Your task to perform on an android device: Clear the shopping cart on walmart. Add "jbl flip 4" to the cart on walmart, then select checkout. Image 0: 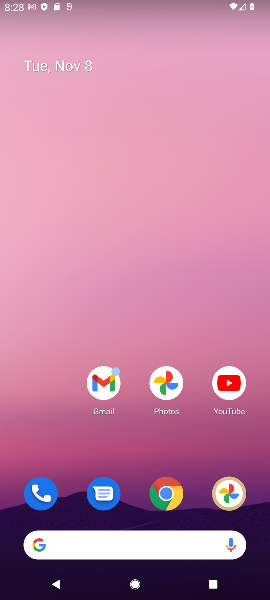
Step 0: click (169, 492)
Your task to perform on an android device: Clear the shopping cart on walmart. Add "jbl flip 4" to the cart on walmart, then select checkout. Image 1: 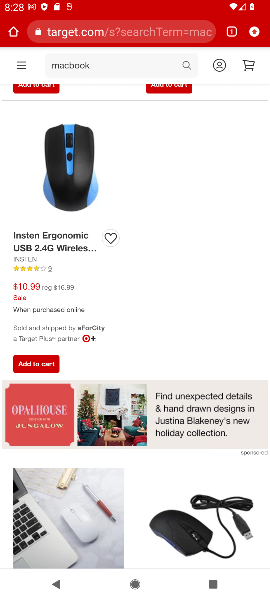
Step 1: click (112, 33)
Your task to perform on an android device: Clear the shopping cart on walmart. Add "jbl flip 4" to the cart on walmart, then select checkout. Image 2: 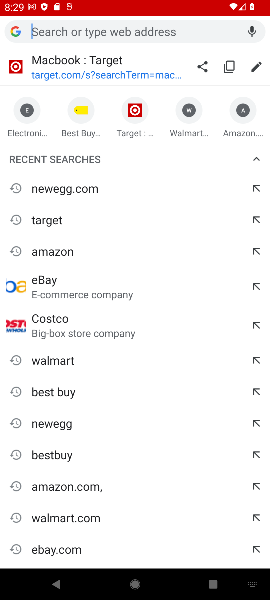
Step 2: click (201, 122)
Your task to perform on an android device: Clear the shopping cart on walmart. Add "jbl flip 4" to the cart on walmart, then select checkout. Image 3: 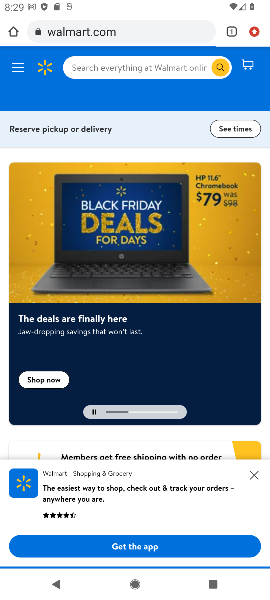
Step 3: click (248, 64)
Your task to perform on an android device: Clear the shopping cart on walmart. Add "jbl flip 4" to the cart on walmart, then select checkout. Image 4: 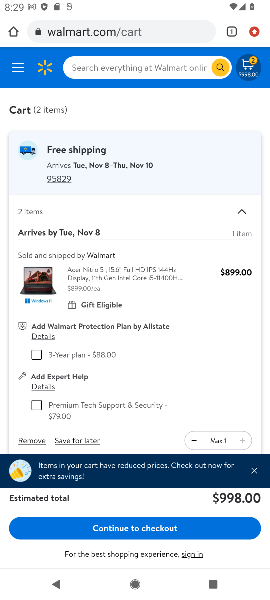
Step 4: drag from (129, 353) to (145, 261)
Your task to perform on an android device: Clear the shopping cart on walmart. Add "jbl flip 4" to the cart on walmart, then select checkout. Image 5: 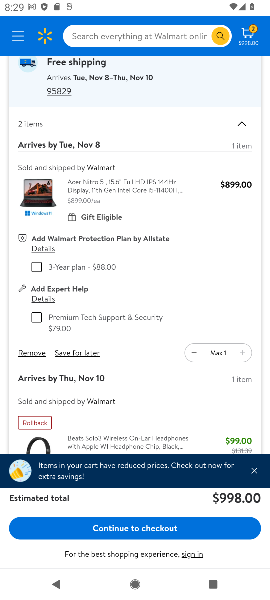
Step 5: click (32, 356)
Your task to perform on an android device: Clear the shopping cart on walmart. Add "jbl flip 4" to the cart on walmart, then select checkout. Image 6: 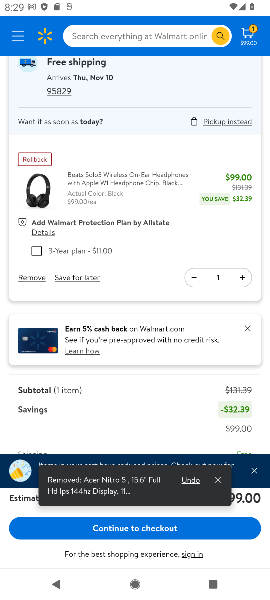
Step 6: click (29, 281)
Your task to perform on an android device: Clear the shopping cart on walmart. Add "jbl flip 4" to the cart on walmart, then select checkout. Image 7: 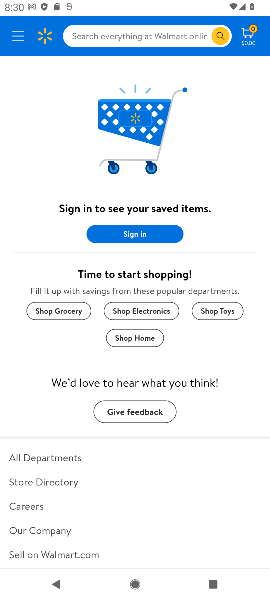
Step 7: click (140, 36)
Your task to perform on an android device: Clear the shopping cart on walmart. Add "jbl flip 4" to the cart on walmart, then select checkout. Image 8: 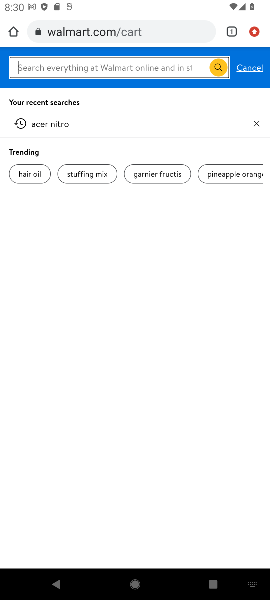
Step 8: type "jbl flip 4"
Your task to perform on an android device: Clear the shopping cart on walmart. Add "jbl flip 4" to the cart on walmart, then select checkout. Image 9: 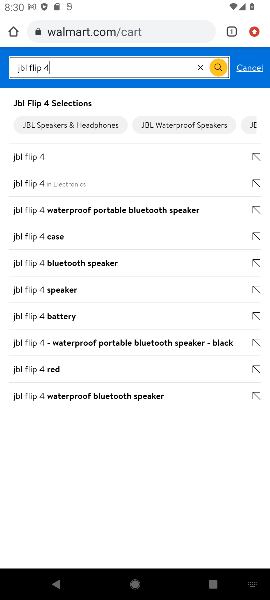
Step 9: click (28, 156)
Your task to perform on an android device: Clear the shopping cart on walmart. Add "jbl flip 4" to the cart on walmart, then select checkout. Image 10: 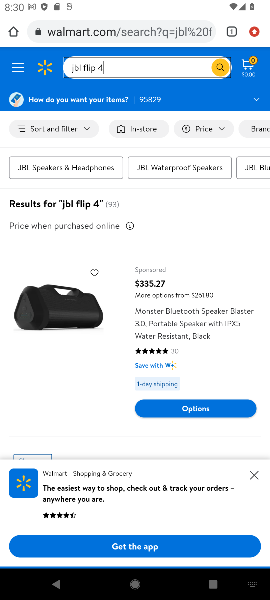
Step 10: drag from (68, 354) to (105, 146)
Your task to perform on an android device: Clear the shopping cart on walmart. Add "jbl flip 4" to the cart on walmart, then select checkout. Image 11: 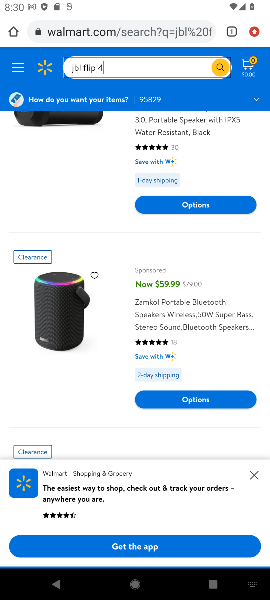
Step 11: drag from (78, 362) to (106, 119)
Your task to perform on an android device: Clear the shopping cart on walmart. Add "jbl flip 4" to the cart on walmart, then select checkout. Image 12: 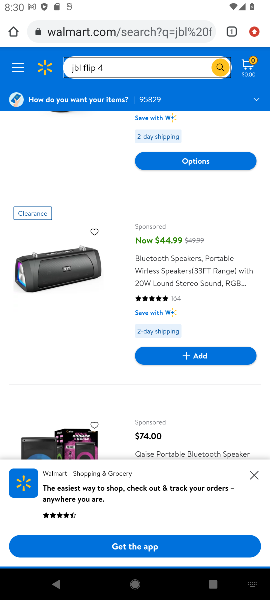
Step 12: drag from (78, 299) to (93, 148)
Your task to perform on an android device: Clear the shopping cart on walmart. Add "jbl flip 4" to the cart on walmart, then select checkout. Image 13: 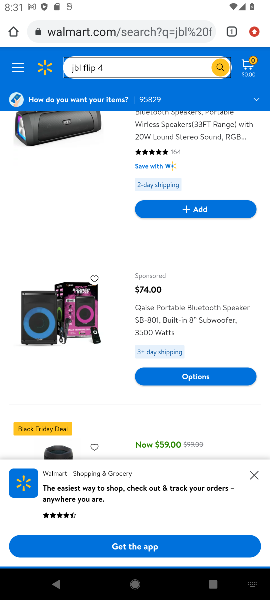
Step 13: drag from (66, 371) to (90, 191)
Your task to perform on an android device: Clear the shopping cart on walmart. Add "jbl flip 4" to the cart on walmart, then select checkout. Image 14: 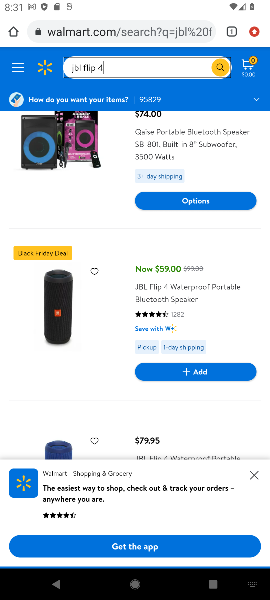
Step 14: click (64, 331)
Your task to perform on an android device: Clear the shopping cart on walmart. Add "jbl flip 4" to the cart on walmart, then select checkout. Image 15: 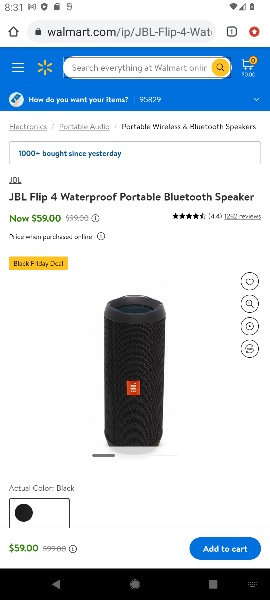
Step 15: click (218, 551)
Your task to perform on an android device: Clear the shopping cart on walmart. Add "jbl flip 4" to the cart on walmart, then select checkout. Image 16: 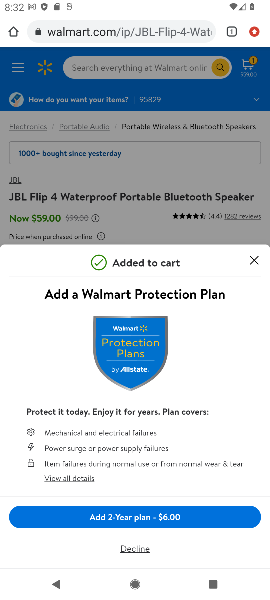
Step 16: click (250, 257)
Your task to perform on an android device: Clear the shopping cart on walmart. Add "jbl flip 4" to the cart on walmart, then select checkout. Image 17: 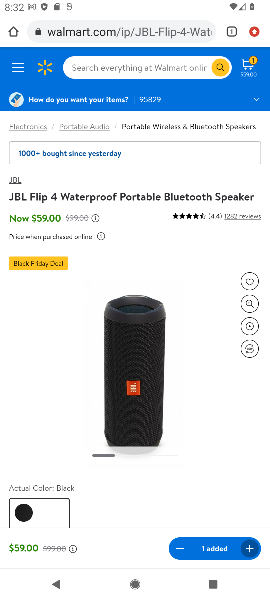
Step 17: click (245, 64)
Your task to perform on an android device: Clear the shopping cart on walmart. Add "jbl flip 4" to the cart on walmart, then select checkout. Image 18: 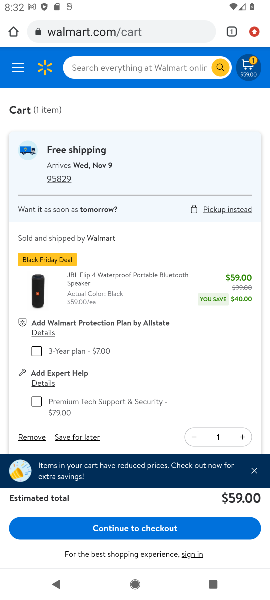
Step 18: click (115, 529)
Your task to perform on an android device: Clear the shopping cart on walmart. Add "jbl flip 4" to the cart on walmart, then select checkout. Image 19: 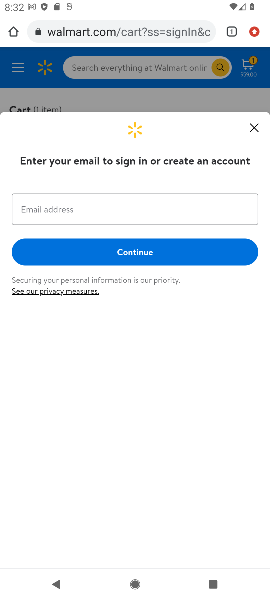
Step 19: task complete